Your task to perform on an android device: Search for Mexican restaurants on Maps Image 0: 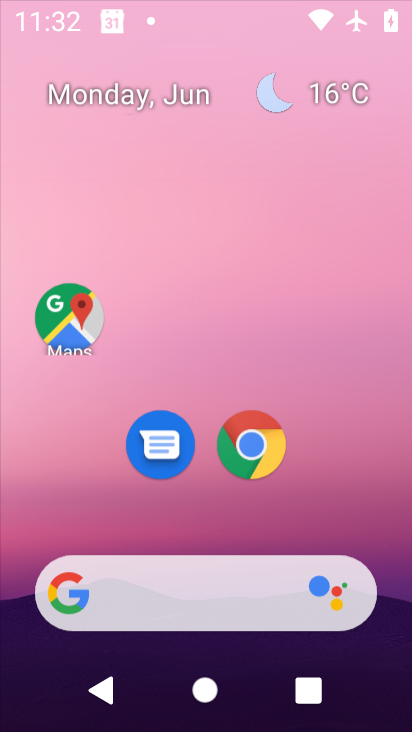
Step 0: press home button
Your task to perform on an android device: Search for Mexican restaurants on Maps Image 1: 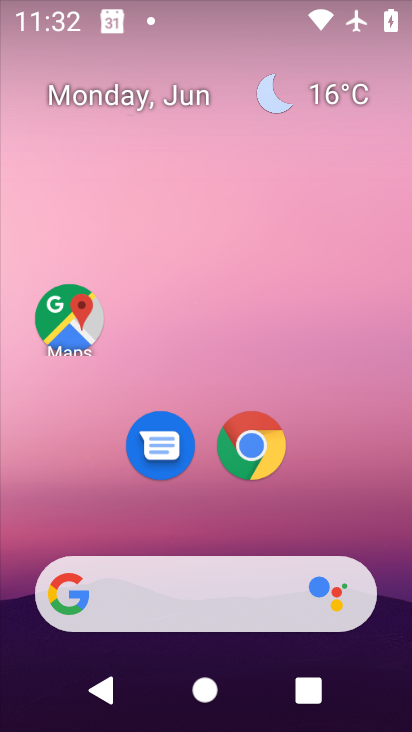
Step 1: click (59, 328)
Your task to perform on an android device: Search for Mexican restaurants on Maps Image 2: 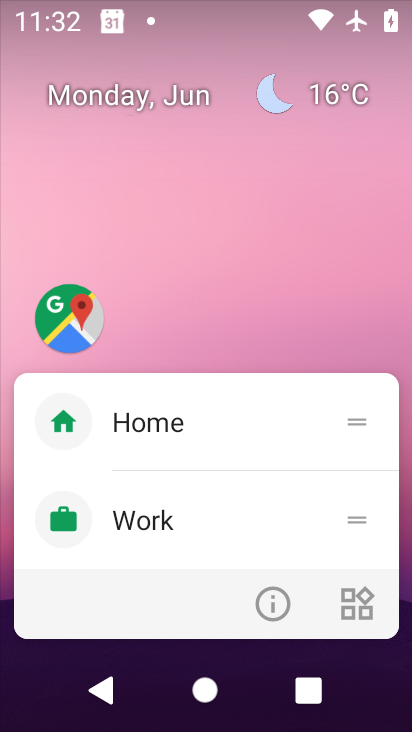
Step 2: click (60, 326)
Your task to perform on an android device: Search for Mexican restaurants on Maps Image 3: 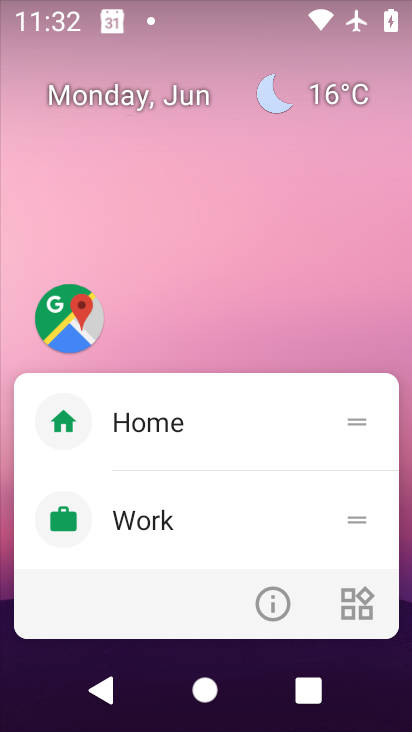
Step 3: click (69, 315)
Your task to perform on an android device: Search for Mexican restaurants on Maps Image 4: 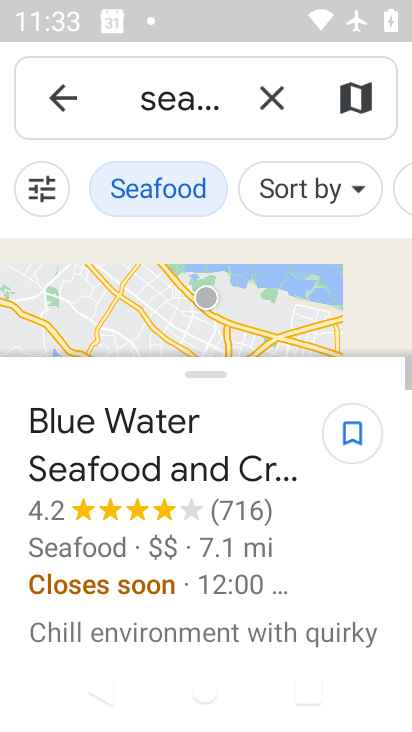
Step 4: click (267, 107)
Your task to perform on an android device: Search for Mexican restaurants on Maps Image 5: 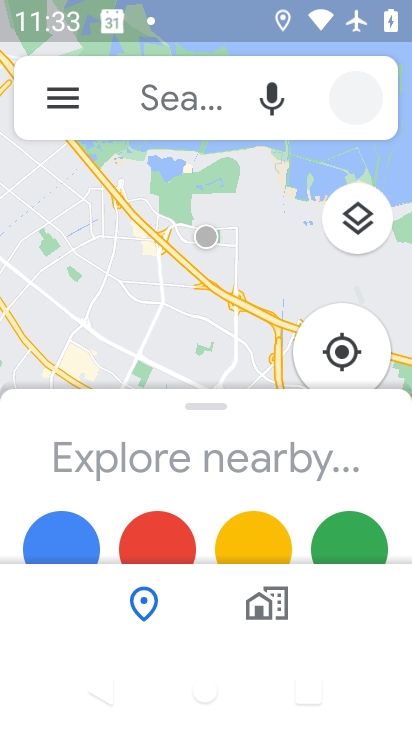
Step 5: click (277, 96)
Your task to perform on an android device: Search for Mexican restaurants on Maps Image 6: 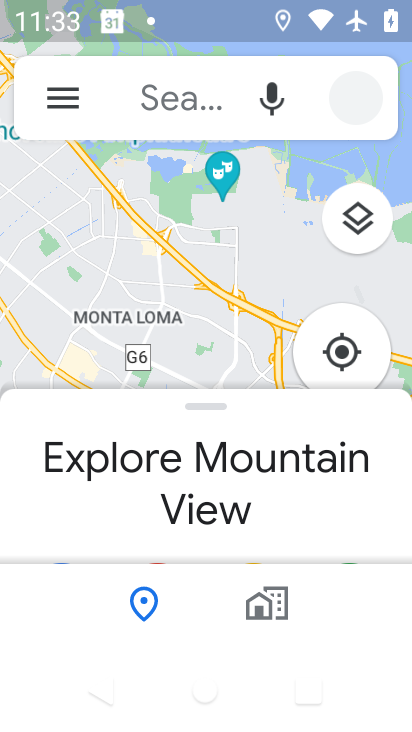
Step 6: click (164, 119)
Your task to perform on an android device: Search for Mexican restaurants on Maps Image 7: 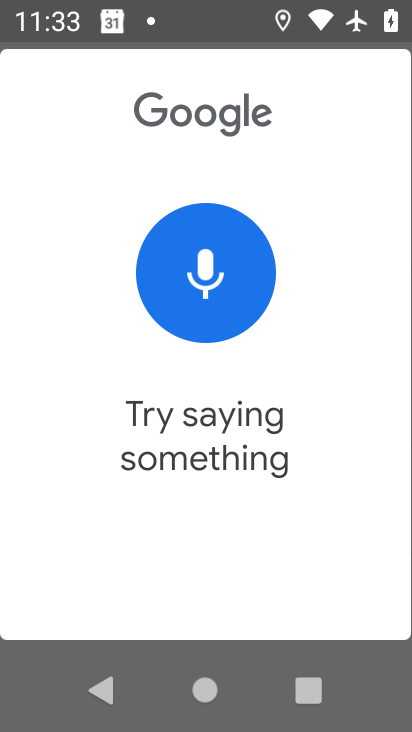
Step 7: click (88, 679)
Your task to perform on an android device: Search for Mexican restaurants on Maps Image 8: 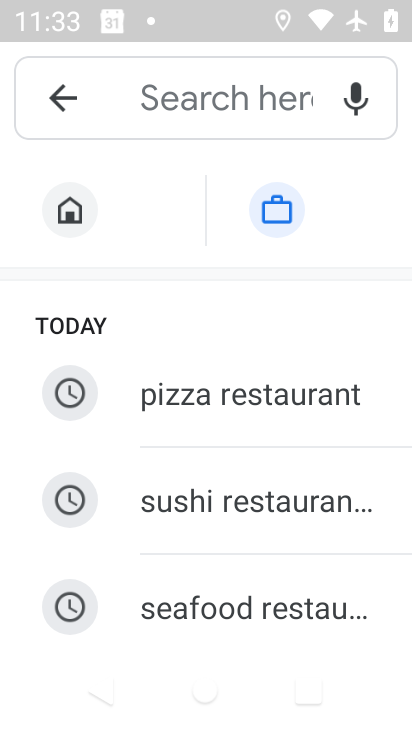
Step 8: click (131, 729)
Your task to perform on an android device: Search for Mexican restaurants on Maps Image 9: 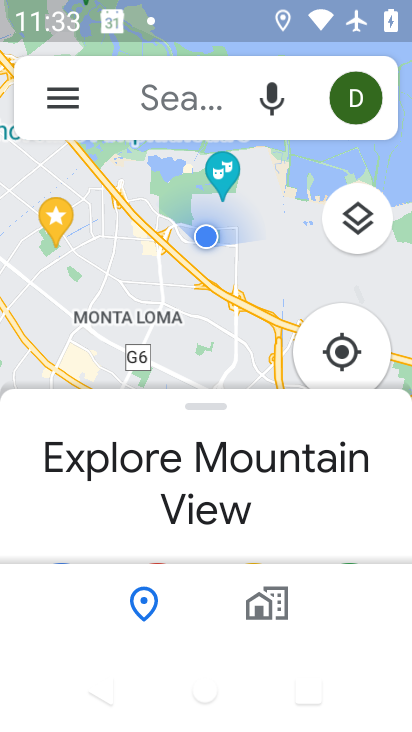
Step 9: type "Mexican restaurant"
Your task to perform on an android device: Search for Mexican restaurants on Maps Image 10: 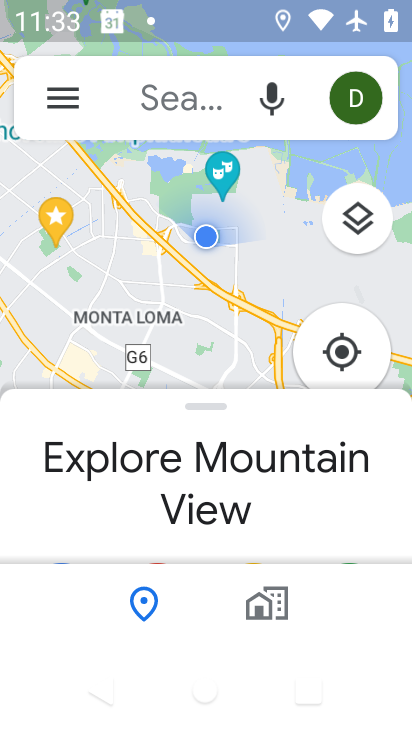
Step 10: click (154, 103)
Your task to perform on an android device: Search for Mexican restaurants on Maps Image 11: 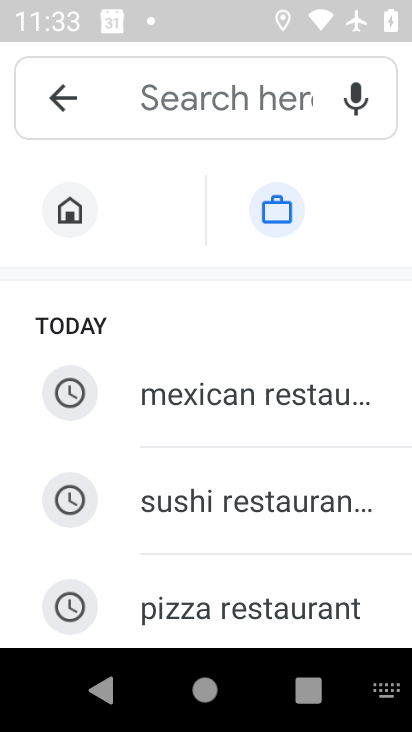
Step 11: click (252, 402)
Your task to perform on an android device: Search for Mexican restaurants on Maps Image 12: 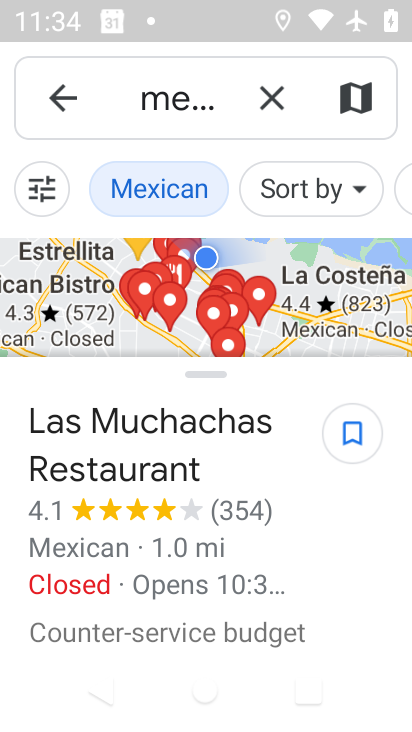
Step 12: task complete